Your task to perform on an android device: see sites visited before in the chrome app Image 0: 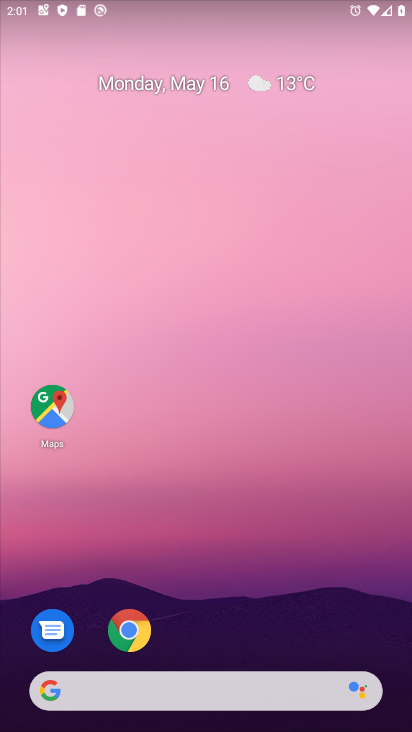
Step 0: click (130, 637)
Your task to perform on an android device: see sites visited before in the chrome app Image 1: 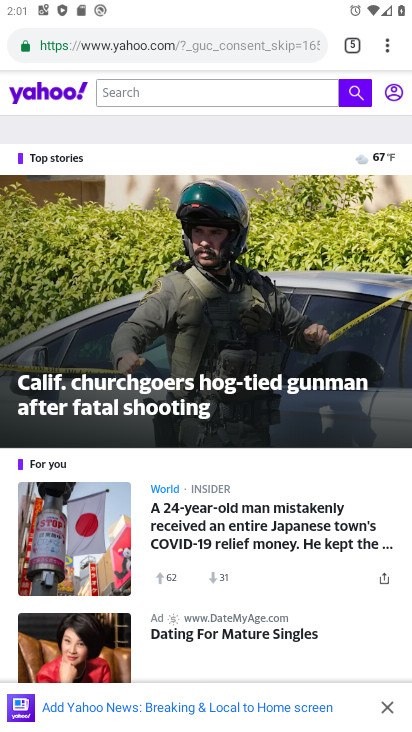
Step 1: click (382, 42)
Your task to perform on an android device: see sites visited before in the chrome app Image 2: 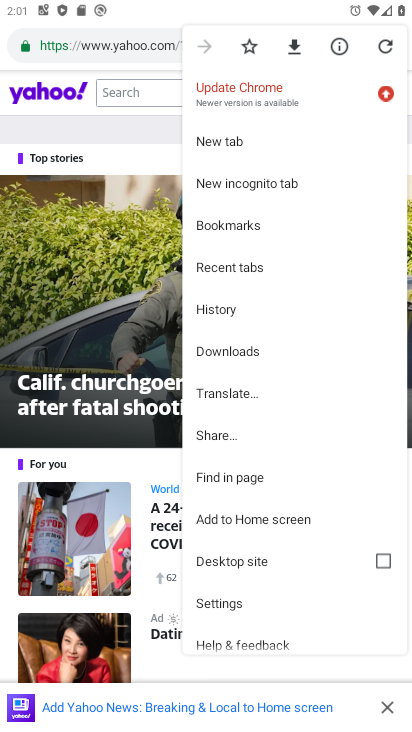
Step 2: click (235, 603)
Your task to perform on an android device: see sites visited before in the chrome app Image 3: 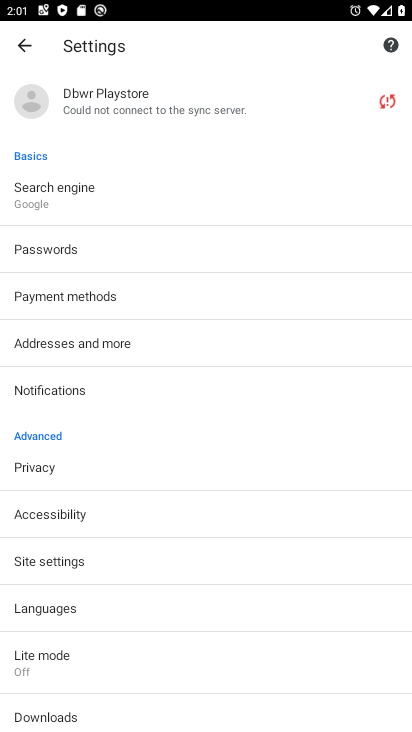
Step 3: click (213, 554)
Your task to perform on an android device: see sites visited before in the chrome app Image 4: 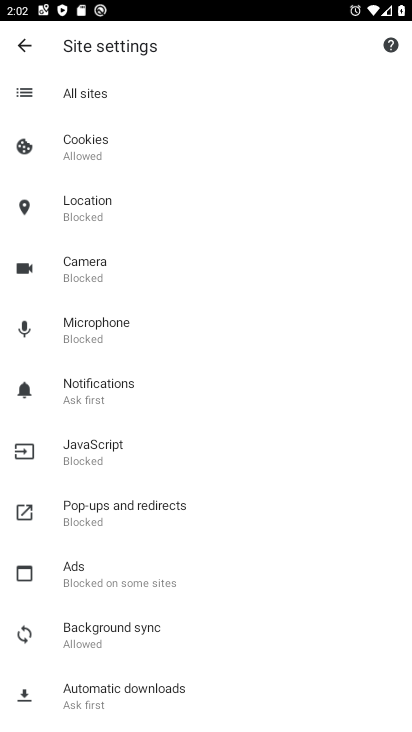
Step 4: drag from (275, 526) to (269, 483)
Your task to perform on an android device: see sites visited before in the chrome app Image 5: 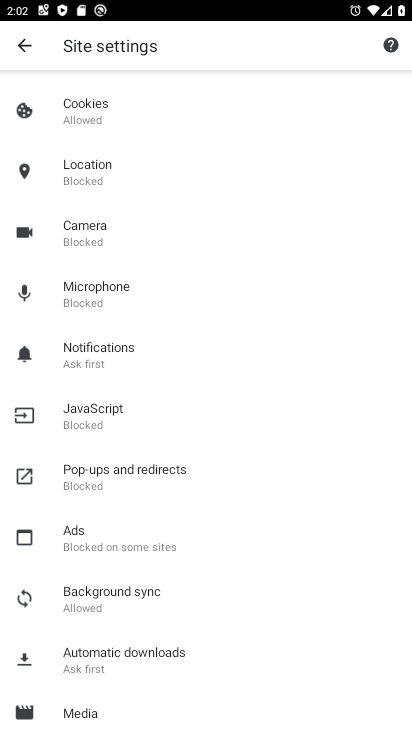
Step 5: drag from (252, 629) to (226, 186)
Your task to perform on an android device: see sites visited before in the chrome app Image 6: 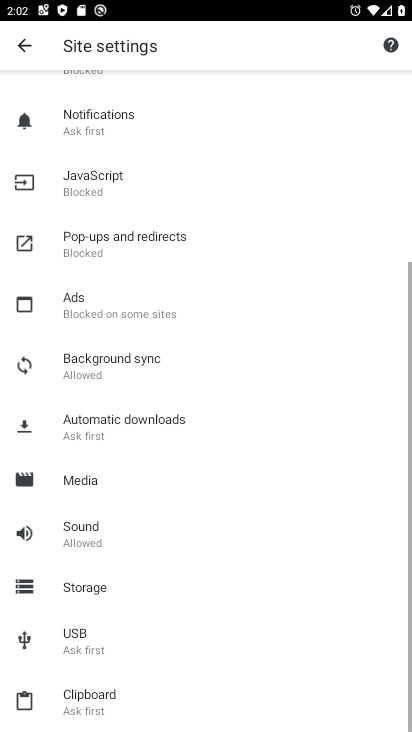
Step 6: drag from (257, 608) to (242, 69)
Your task to perform on an android device: see sites visited before in the chrome app Image 7: 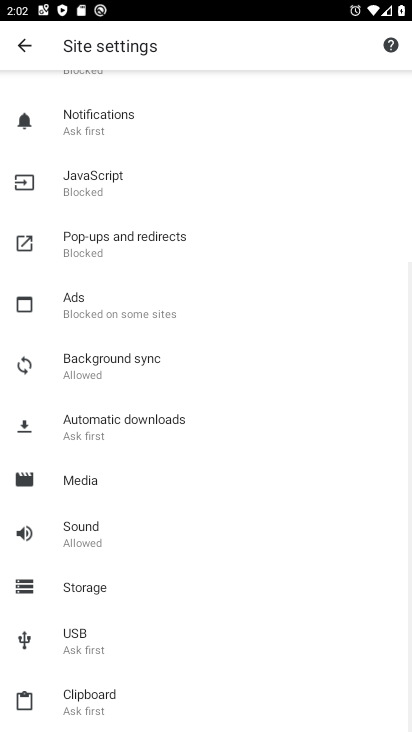
Step 7: drag from (264, 157) to (264, 621)
Your task to perform on an android device: see sites visited before in the chrome app Image 8: 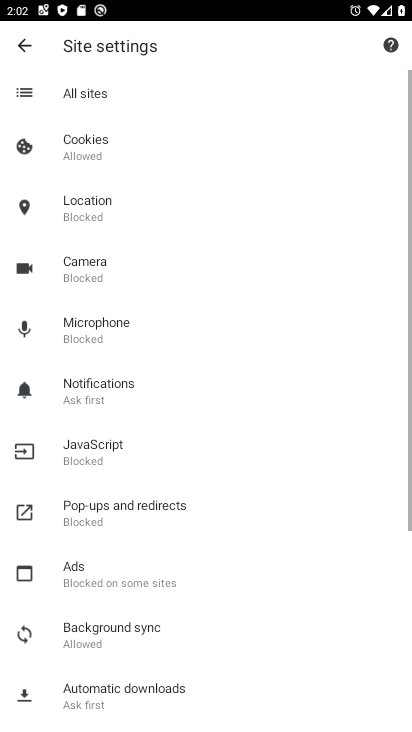
Step 8: drag from (239, 123) to (241, 632)
Your task to perform on an android device: see sites visited before in the chrome app Image 9: 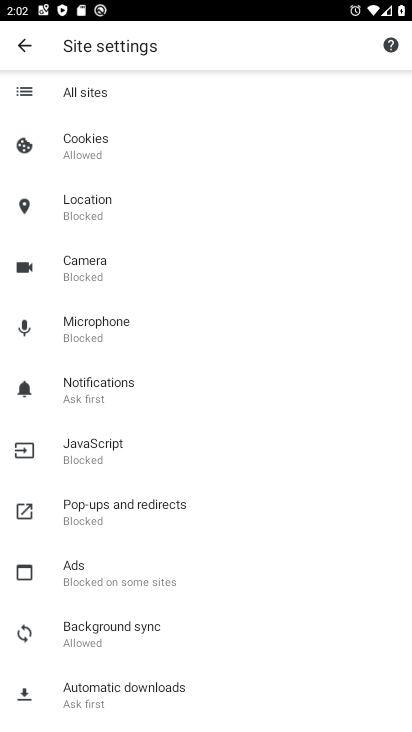
Step 9: click (82, 81)
Your task to perform on an android device: see sites visited before in the chrome app Image 10: 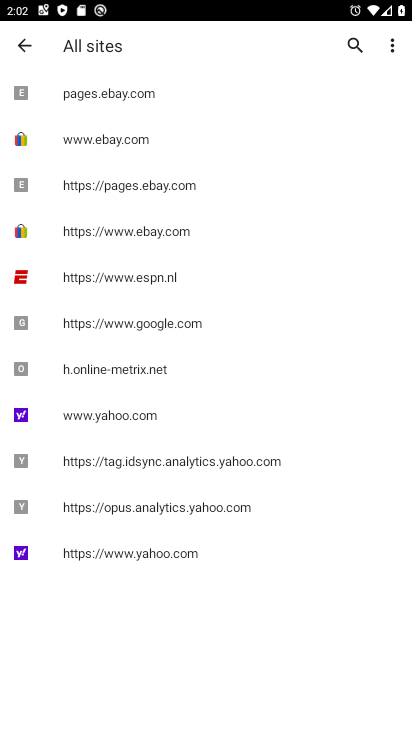
Step 10: task complete